Your task to perform on an android device: Open Youtube and go to "Your channel" Image 0: 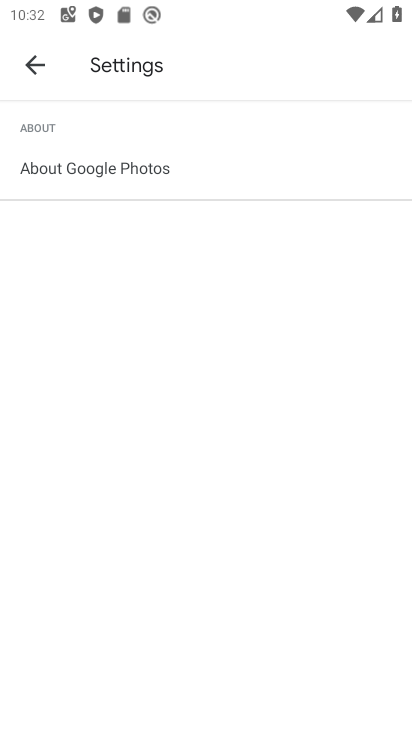
Step 0: click (30, 70)
Your task to perform on an android device: Open Youtube and go to "Your channel" Image 1: 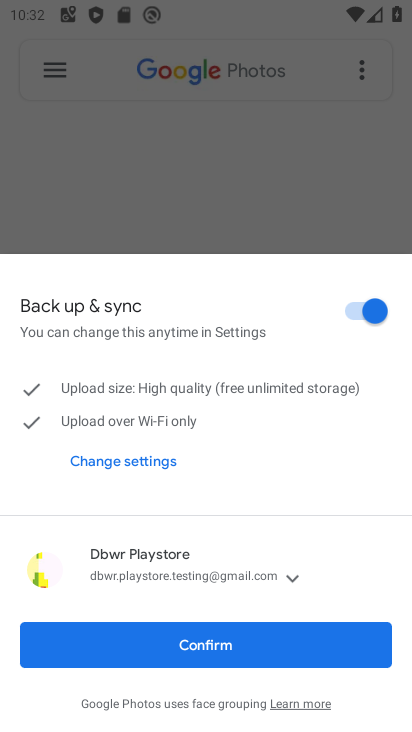
Step 1: press home button
Your task to perform on an android device: Open Youtube and go to "Your channel" Image 2: 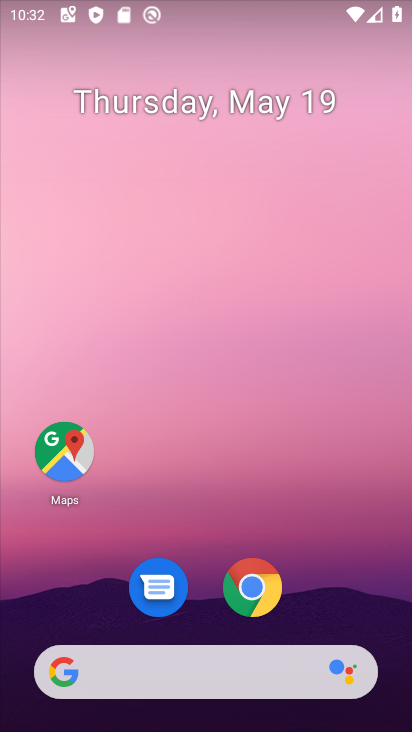
Step 2: drag from (373, 562) to (352, 176)
Your task to perform on an android device: Open Youtube and go to "Your channel" Image 3: 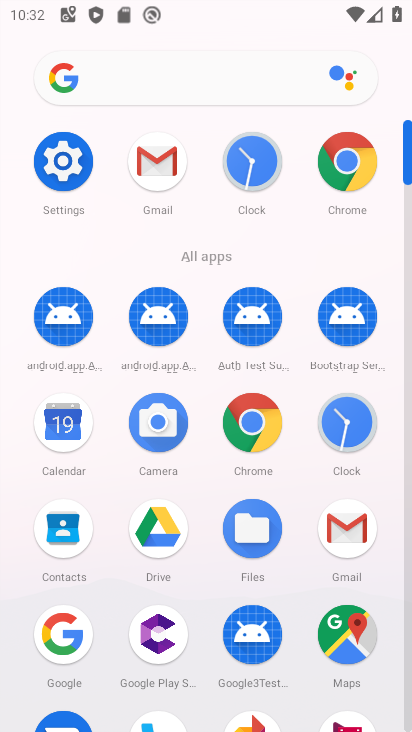
Step 3: drag from (299, 578) to (240, 104)
Your task to perform on an android device: Open Youtube and go to "Your channel" Image 4: 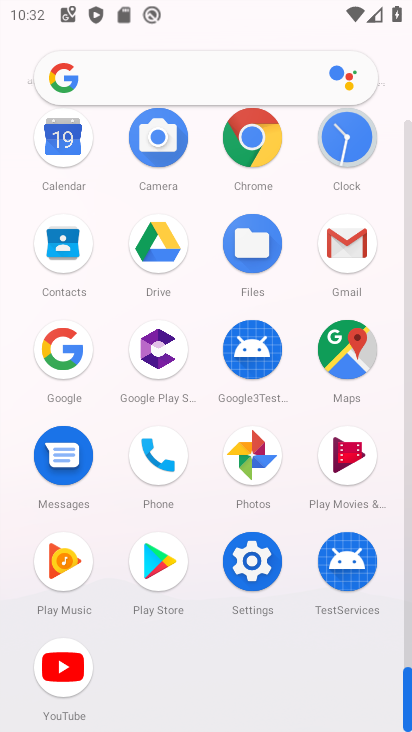
Step 4: click (59, 671)
Your task to perform on an android device: Open Youtube and go to "Your channel" Image 5: 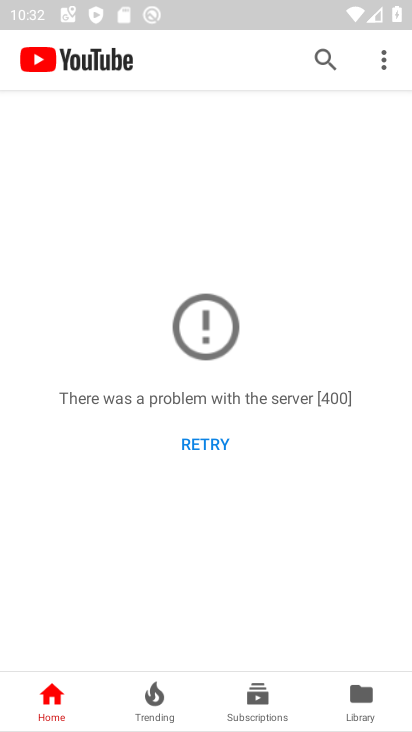
Step 5: click (354, 722)
Your task to perform on an android device: Open Youtube and go to "Your channel" Image 6: 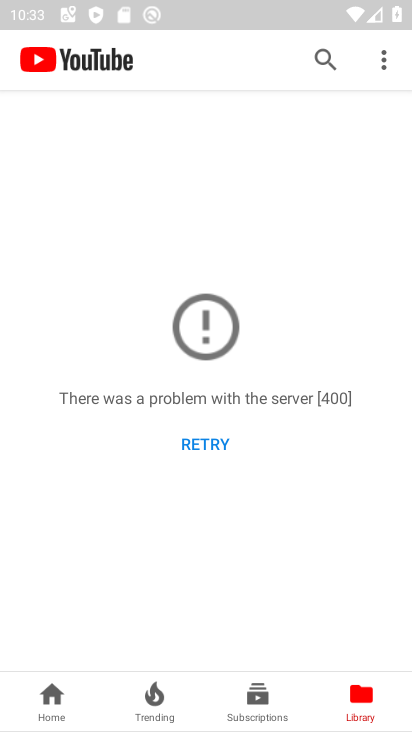
Step 6: task complete